Your task to perform on an android device: Search for seafood restaurants on Google Maps Image 0: 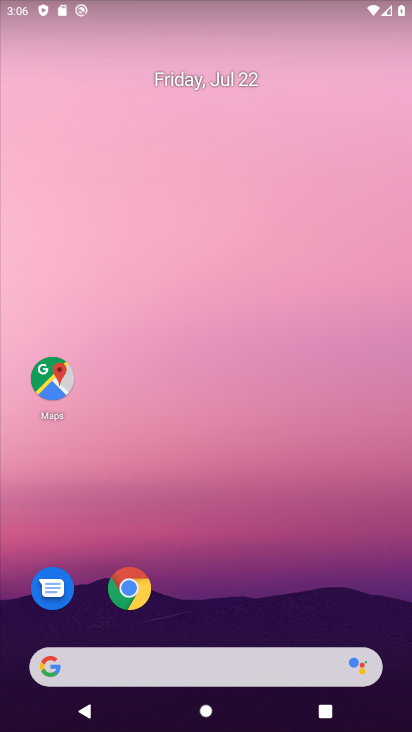
Step 0: drag from (219, 648) to (259, 171)
Your task to perform on an android device: Search for seafood restaurants on Google Maps Image 1: 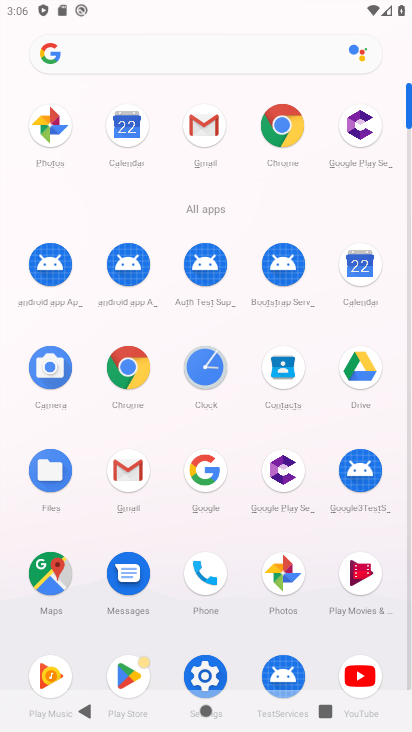
Step 1: click (62, 573)
Your task to perform on an android device: Search for seafood restaurants on Google Maps Image 2: 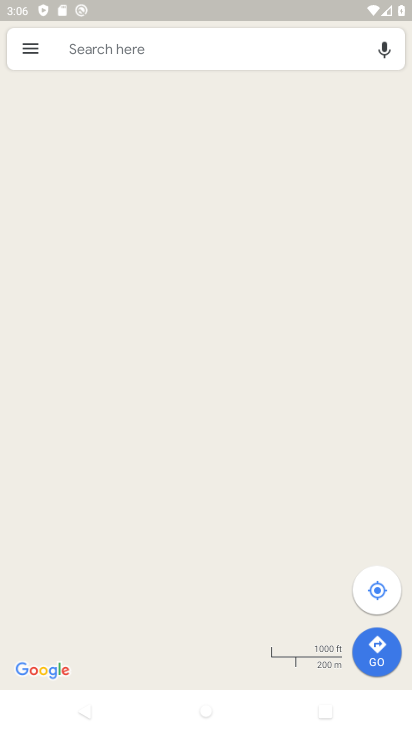
Step 2: click (115, 44)
Your task to perform on an android device: Search for seafood restaurants on Google Maps Image 3: 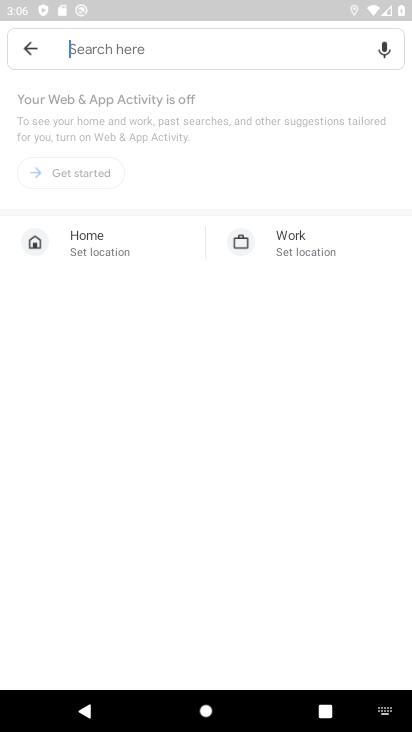
Step 3: click (115, 52)
Your task to perform on an android device: Search for seafood restaurants on Google Maps Image 4: 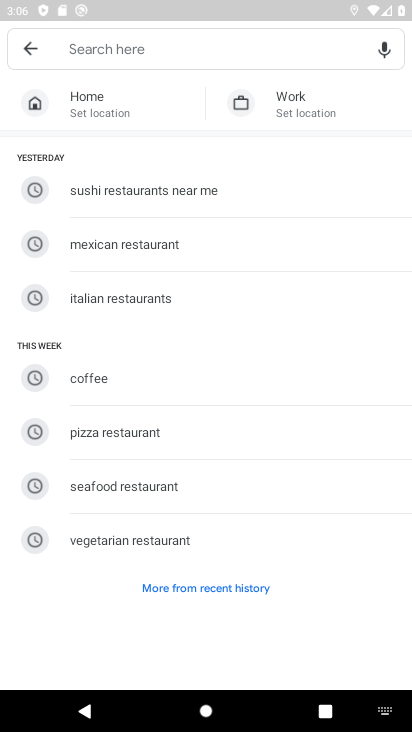
Step 4: click (98, 482)
Your task to perform on an android device: Search for seafood restaurants on Google Maps Image 5: 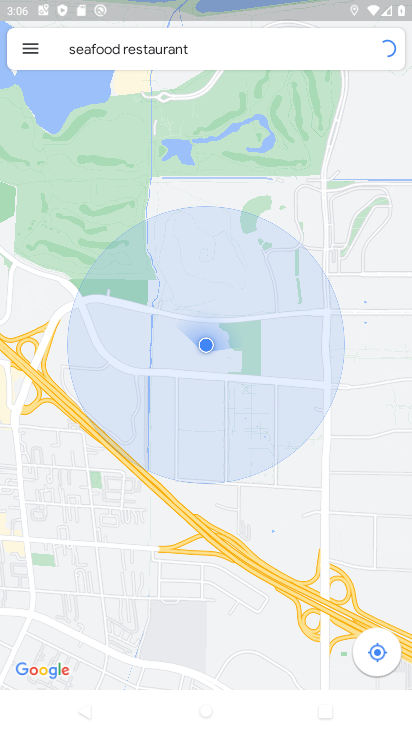
Step 5: task complete